Your task to perform on an android device: choose inbox layout in the gmail app Image 0: 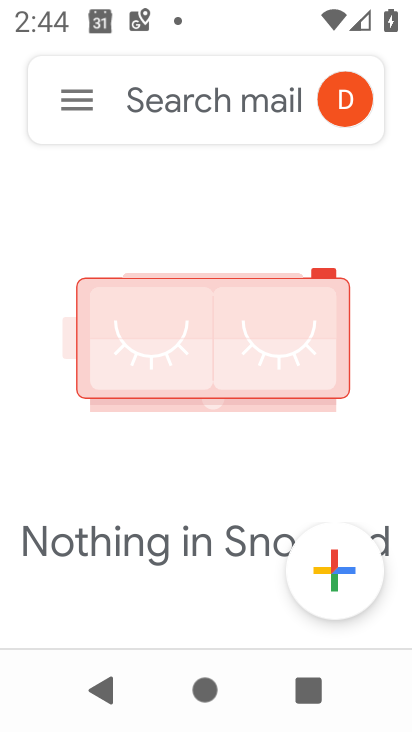
Step 0: press home button
Your task to perform on an android device: choose inbox layout in the gmail app Image 1: 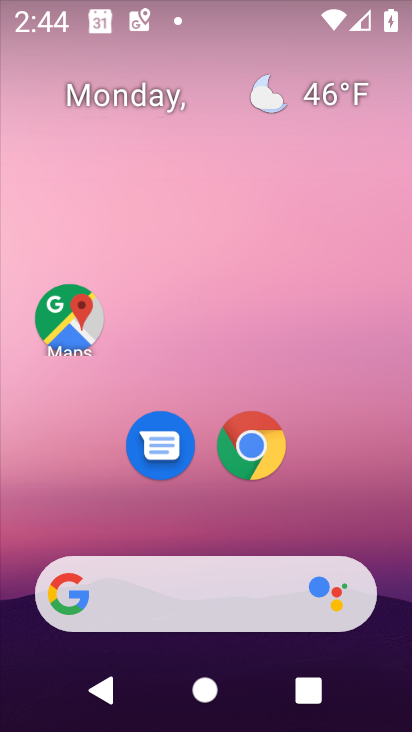
Step 1: drag from (295, 530) to (294, 110)
Your task to perform on an android device: choose inbox layout in the gmail app Image 2: 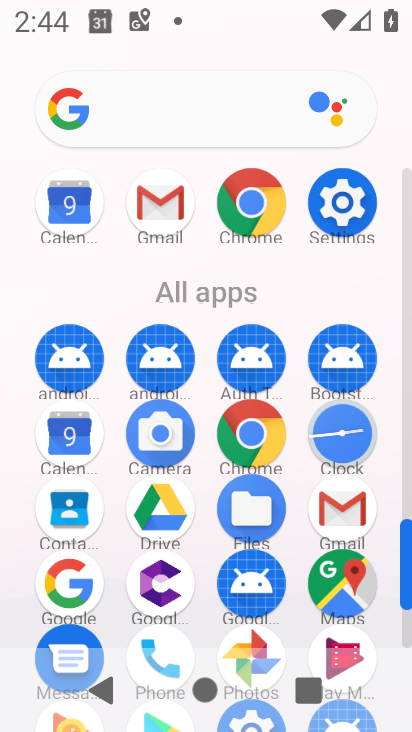
Step 2: click (354, 514)
Your task to perform on an android device: choose inbox layout in the gmail app Image 3: 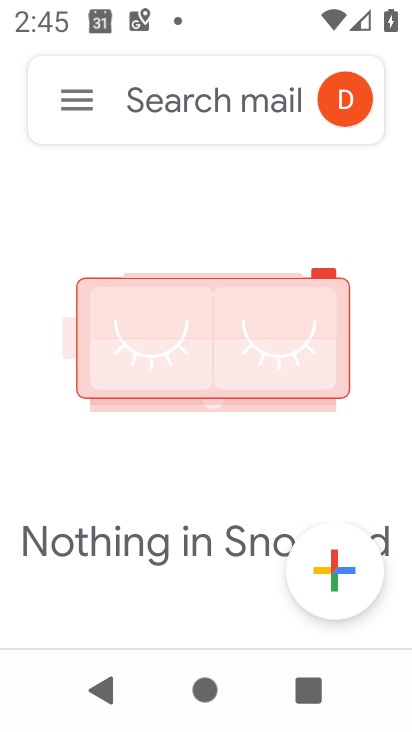
Step 3: click (83, 102)
Your task to perform on an android device: choose inbox layout in the gmail app Image 4: 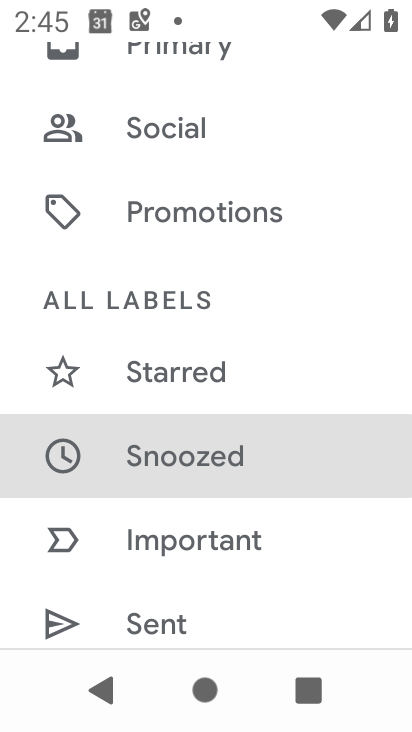
Step 4: drag from (256, 159) to (268, 508)
Your task to perform on an android device: choose inbox layout in the gmail app Image 5: 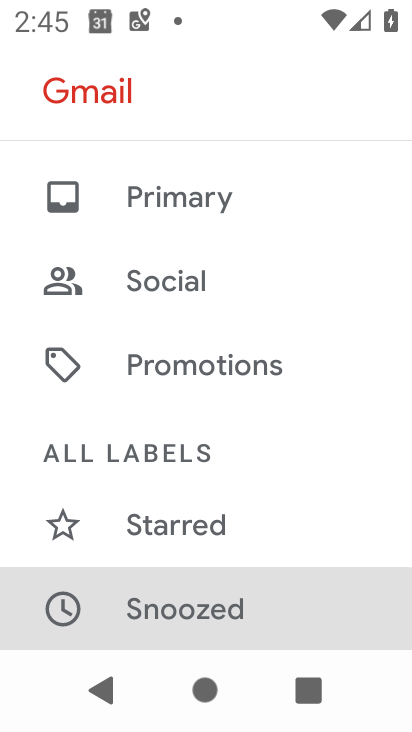
Step 5: drag from (327, 506) to (312, 175)
Your task to perform on an android device: choose inbox layout in the gmail app Image 6: 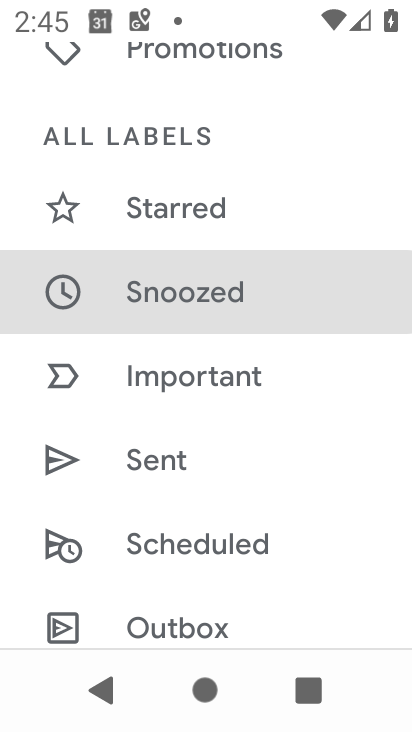
Step 6: drag from (353, 471) to (342, 132)
Your task to perform on an android device: choose inbox layout in the gmail app Image 7: 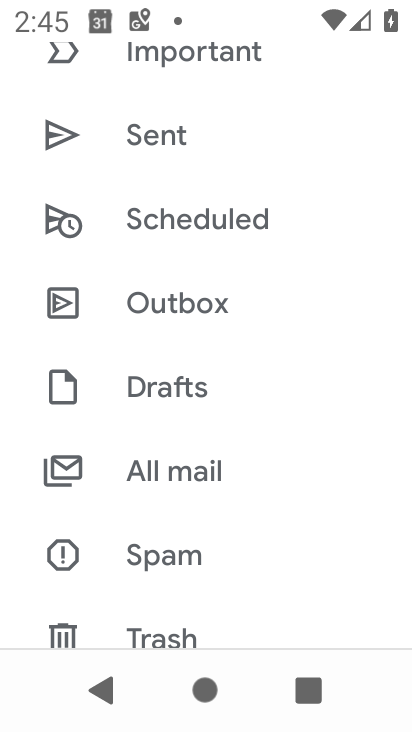
Step 7: drag from (284, 493) to (275, 139)
Your task to perform on an android device: choose inbox layout in the gmail app Image 8: 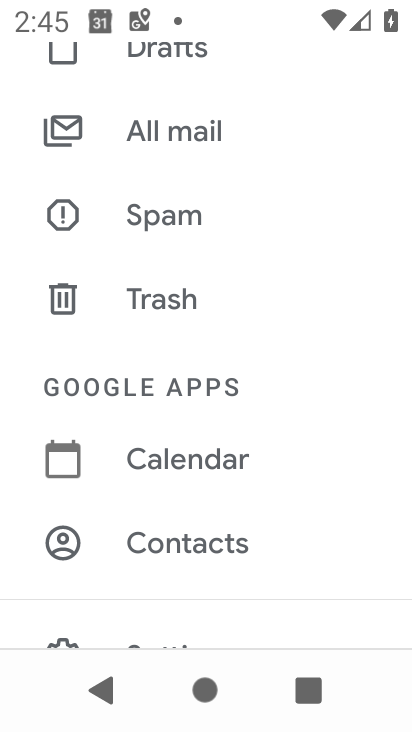
Step 8: drag from (203, 585) to (233, 114)
Your task to perform on an android device: choose inbox layout in the gmail app Image 9: 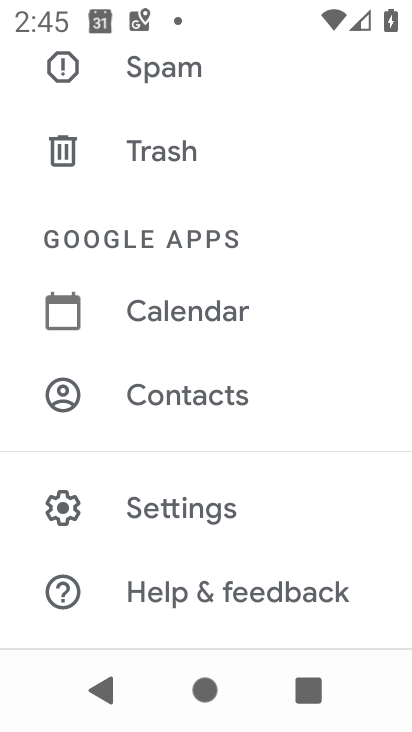
Step 9: click (200, 517)
Your task to perform on an android device: choose inbox layout in the gmail app Image 10: 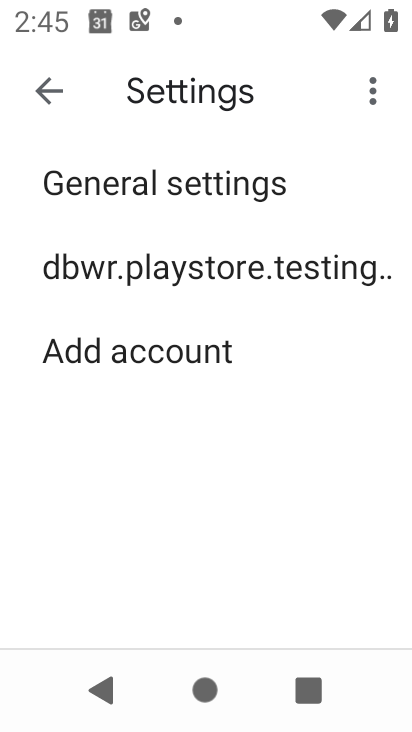
Step 10: click (221, 257)
Your task to perform on an android device: choose inbox layout in the gmail app Image 11: 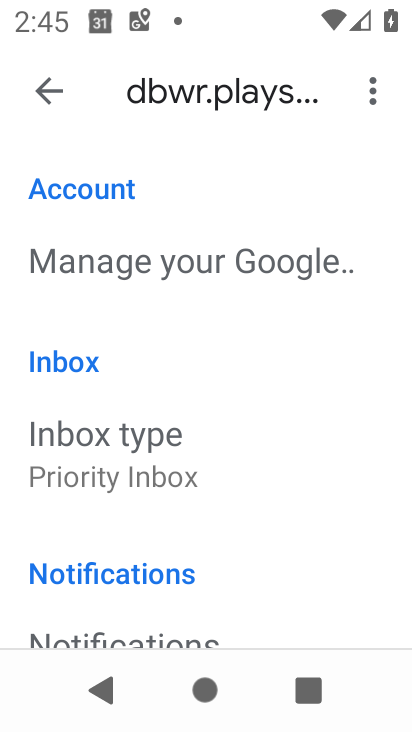
Step 11: drag from (218, 545) to (230, 230)
Your task to perform on an android device: choose inbox layout in the gmail app Image 12: 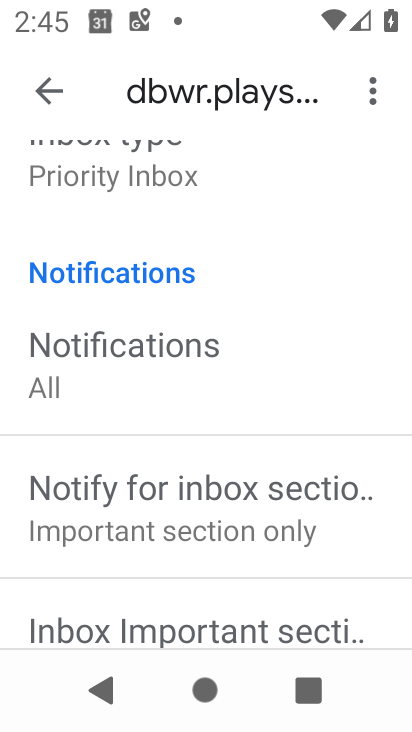
Step 12: click (209, 577)
Your task to perform on an android device: choose inbox layout in the gmail app Image 13: 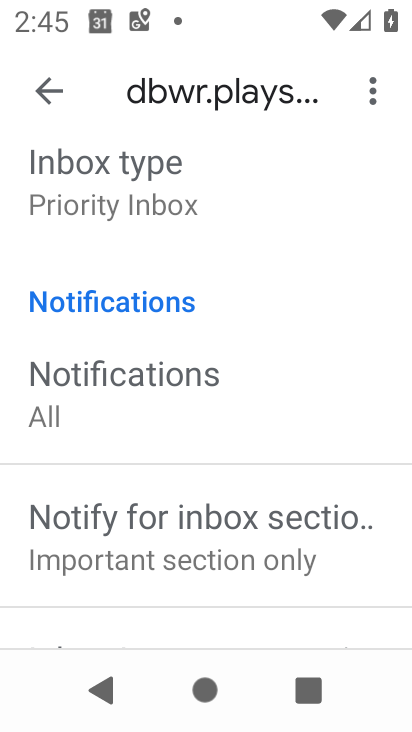
Step 13: click (174, 206)
Your task to perform on an android device: choose inbox layout in the gmail app Image 14: 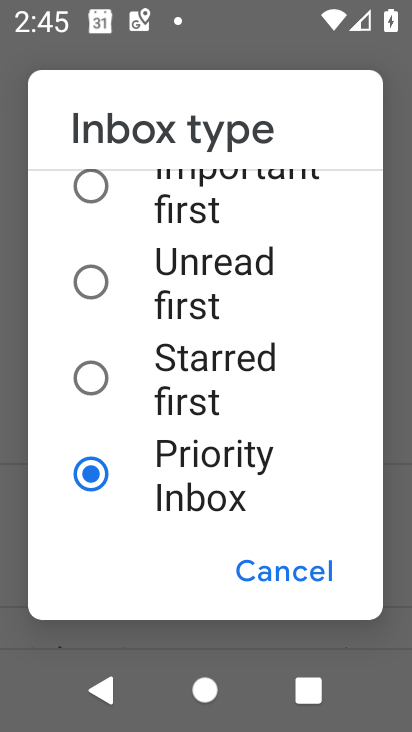
Step 14: drag from (235, 242) to (233, 529)
Your task to perform on an android device: choose inbox layout in the gmail app Image 15: 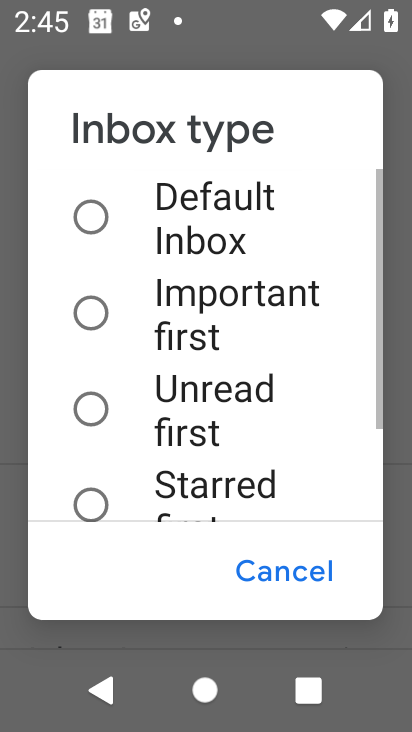
Step 15: click (239, 250)
Your task to perform on an android device: choose inbox layout in the gmail app Image 16: 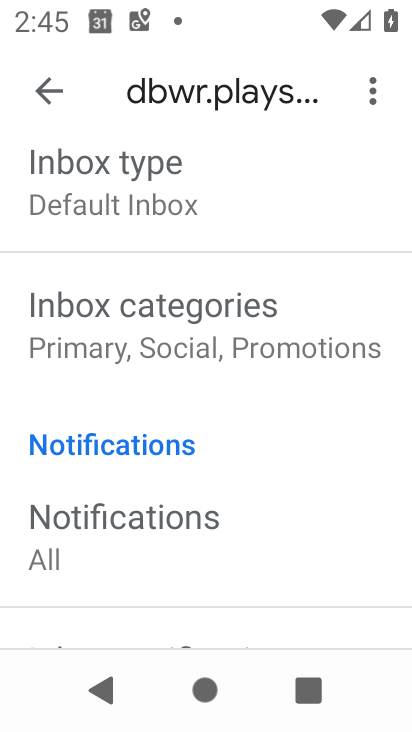
Step 16: task complete